Your task to perform on an android device: toggle priority inbox in the gmail app Image 0: 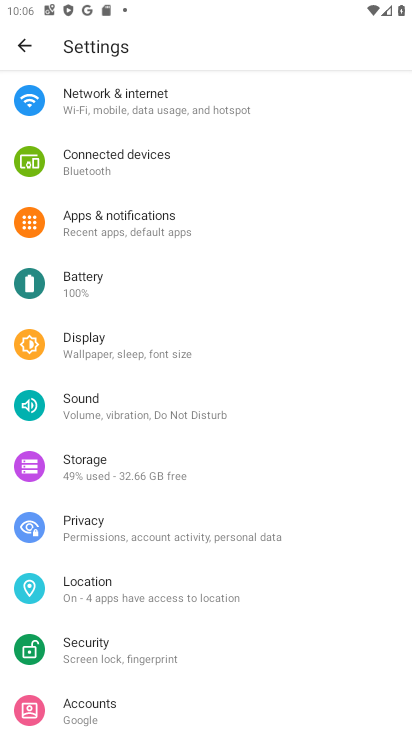
Step 0: press home button
Your task to perform on an android device: toggle priority inbox in the gmail app Image 1: 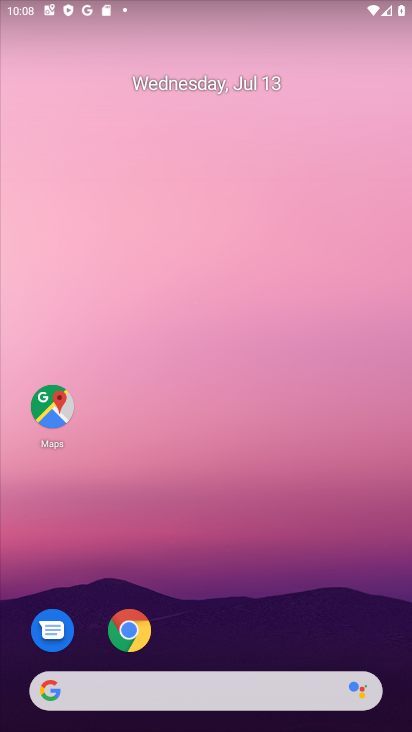
Step 1: drag from (247, 607) to (175, 52)
Your task to perform on an android device: toggle priority inbox in the gmail app Image 2: 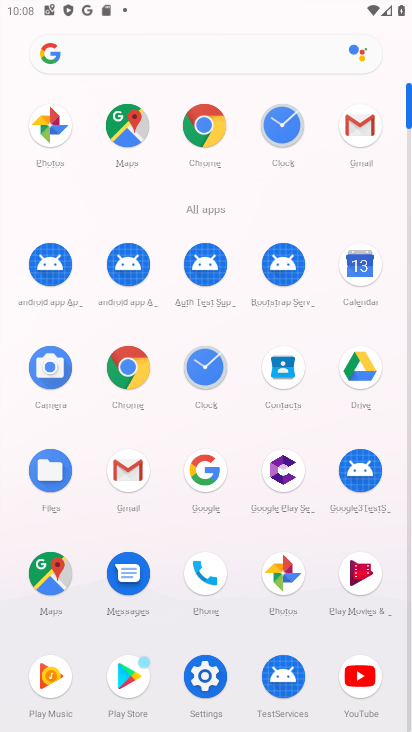
Step 2: click (359, 127)
Your task to perform on an android device: toggle priority inbox in the gmail app Image 3: 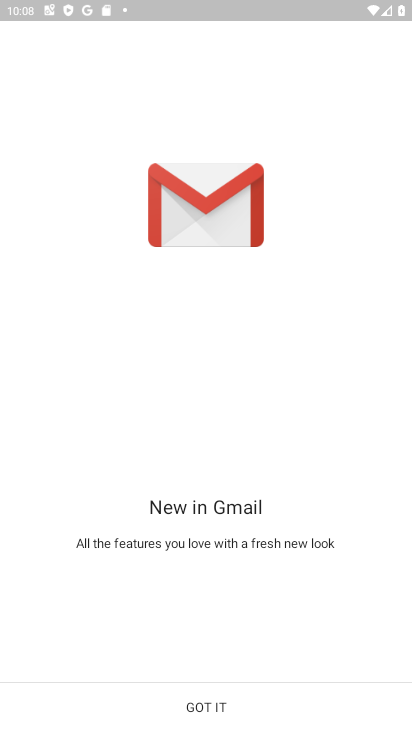
Step 3: click (204, 708)
Your task to perform on an android device: toggle priority inbox in the gmail app Image 4: 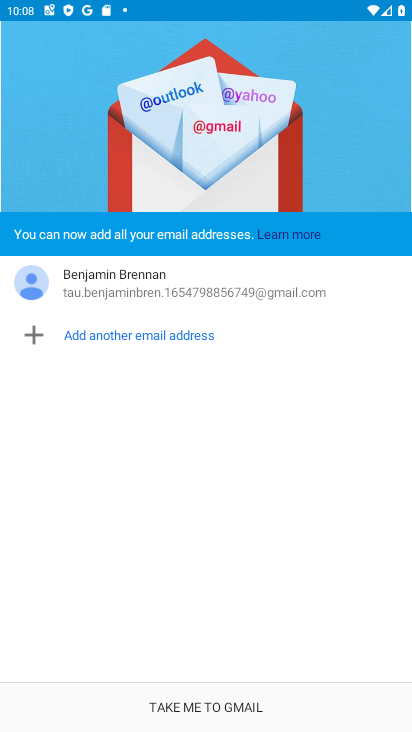
Step 4: click (204, 708)
Your task to perform on an android device: toggle priority inbox in the gmail app Image 5: 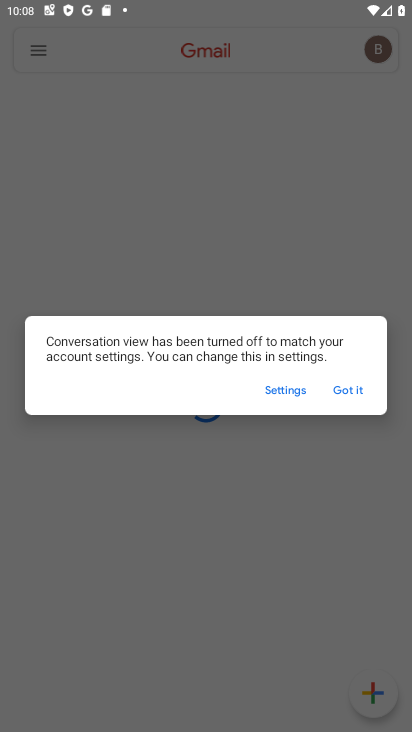
Step 5: click (352, 392)
Your task to perform on an android device: toggle priority inbox in the gmail app Image 6: 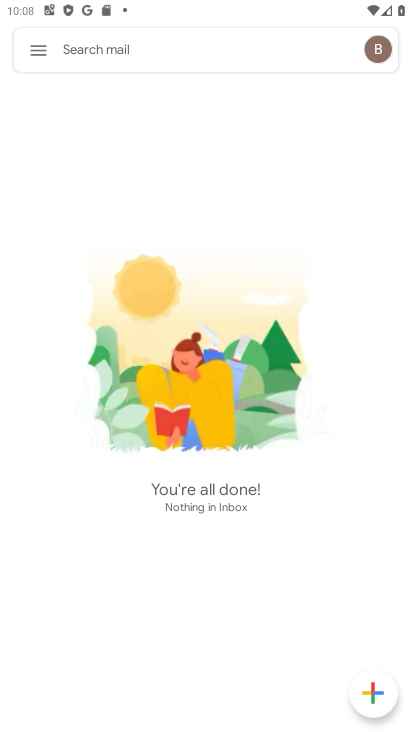
Step 6: click (38, 54)
Your task to perform on an android device: toggle priority inbox in the gmail app Image 7: 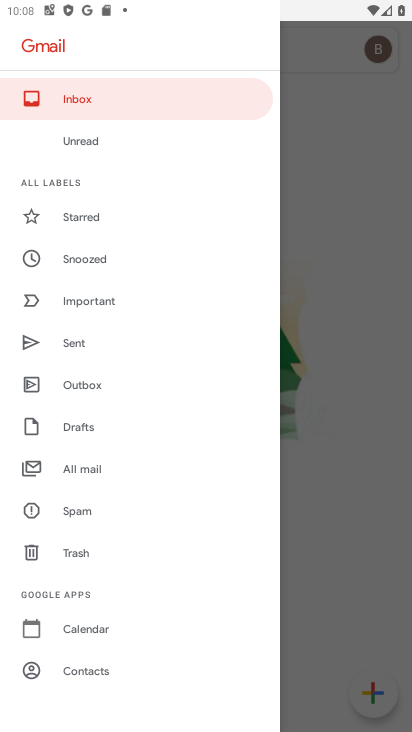
Step 7: drag from (136, 687) to (152, 318)
Your task to perform on an android device: toggle priority inbox in the gmail app Image 8: 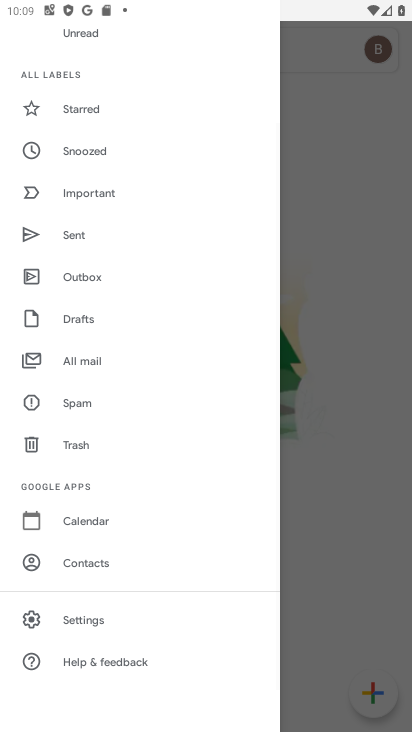
Step 8: click (111, 616)
Your task to perform on an android device: toggle priority inbox in the gmail app Image 9: 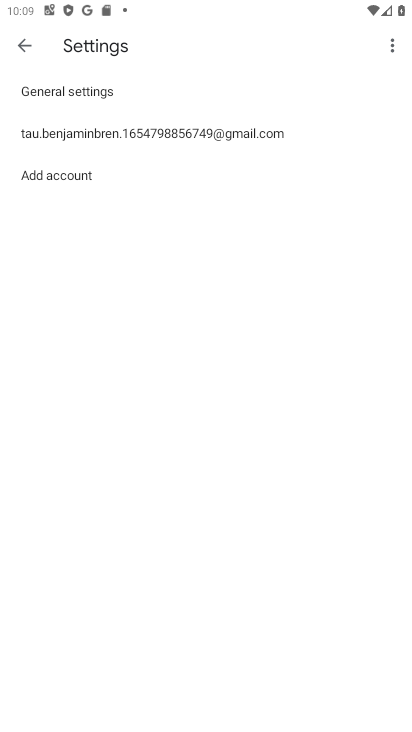
Step 9: click (247, 143)
Your task to perform on an android device: toggle priority inbox in the gmail app Image 10: 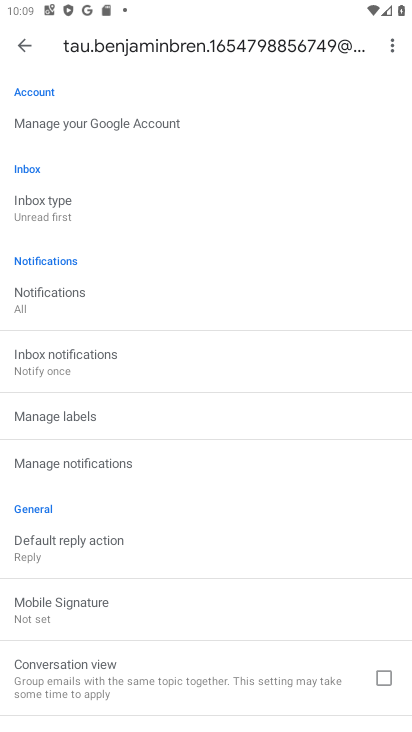
Step 10: click (113, 225)
Your task to perform on an android device: toggle priority inbox in the gmail app Image 11: 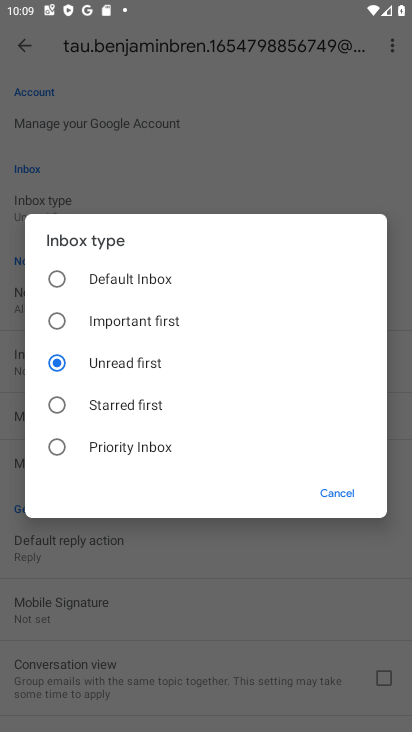
Step 11: click (103, 449)
Your task to perform on an android device: toggle priority inbox in the gmail app Image 12: 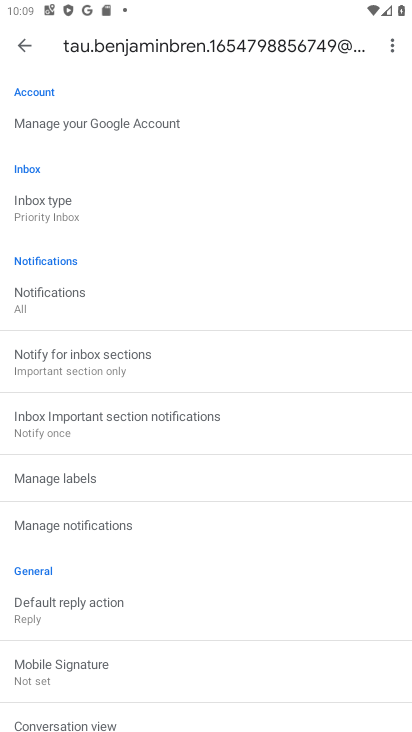
Step 12: task complete